Your task to perform on an android device: toggle improve location accuracy Image 0: 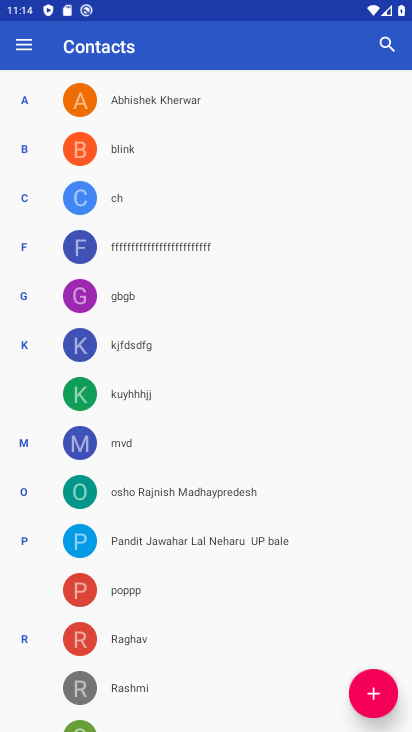
Step 0: press home button
Your task to perform on an android device: toggle improve location accuracy Image 1: 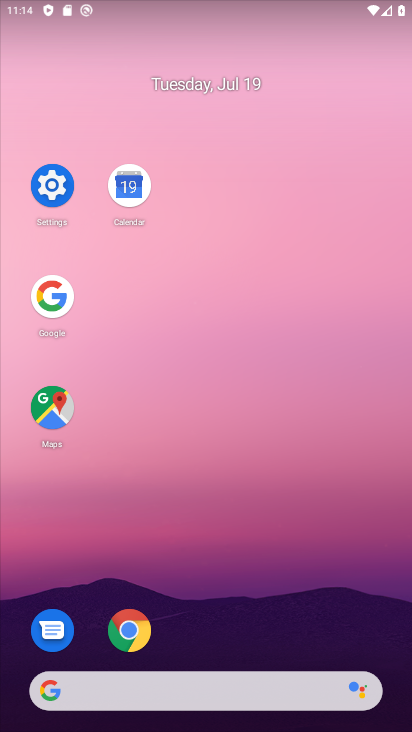
Step 1: click (64, 175)
Your task to perform on an android device: toggle improve location accuracy Image 2: 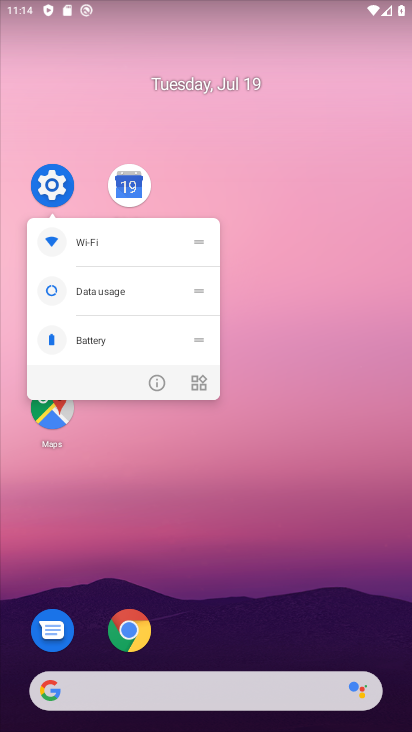
Step 2: click (65, 172)
Your task to perform on an android device: toggle improve location accuracy Image 3: 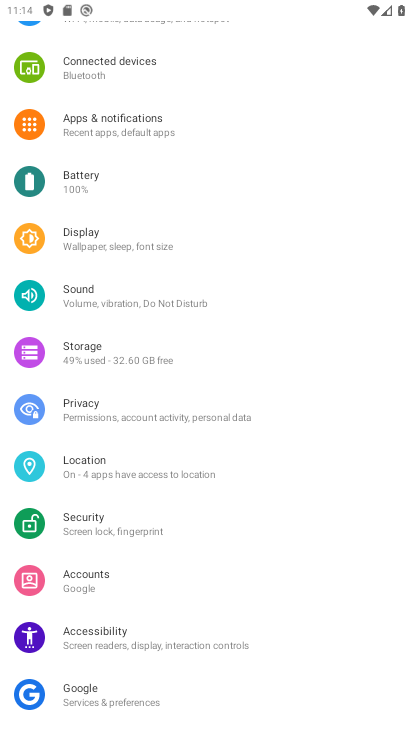
Step 3: click (133, 466)
Your task to perform on an android device: toggle improve location accuracy Image 4: 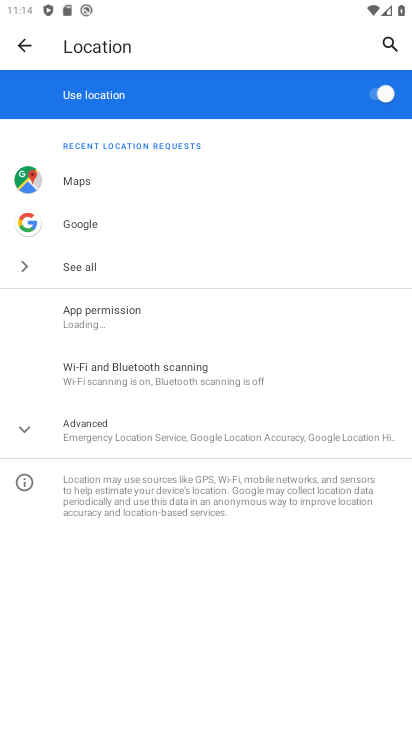
Step 4: click (136, 415)
Your task to perform on an android device: toggle improve location accuracy Image 5: 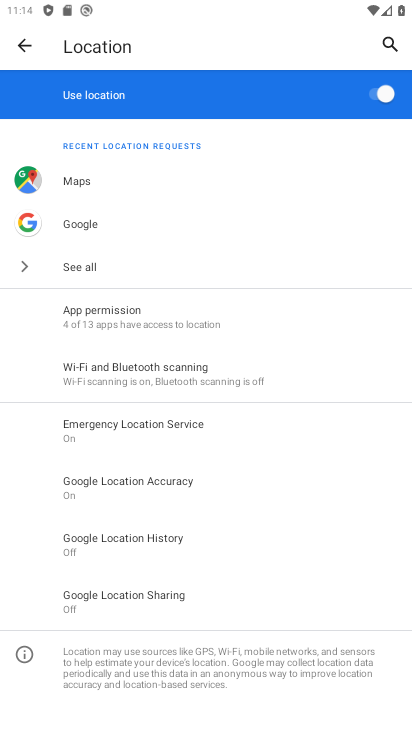
Step 5: click (166, 471)
Your task to perform on an android device: toggle improve location accuracy Image 6: 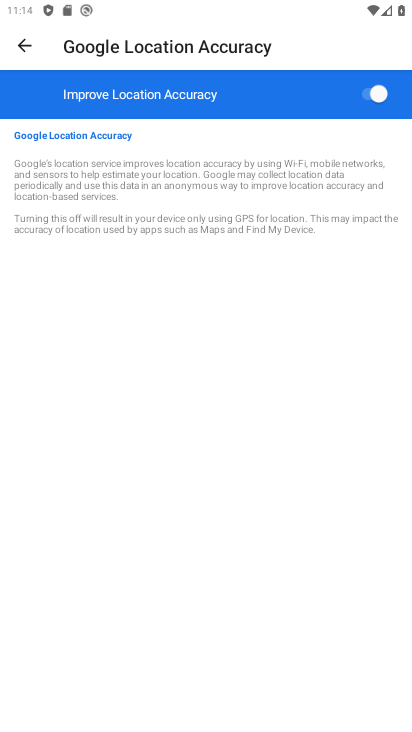
Step 6: click (387, 99)
Your task to perform on an android device: toggle improve location accuracy Image 7: 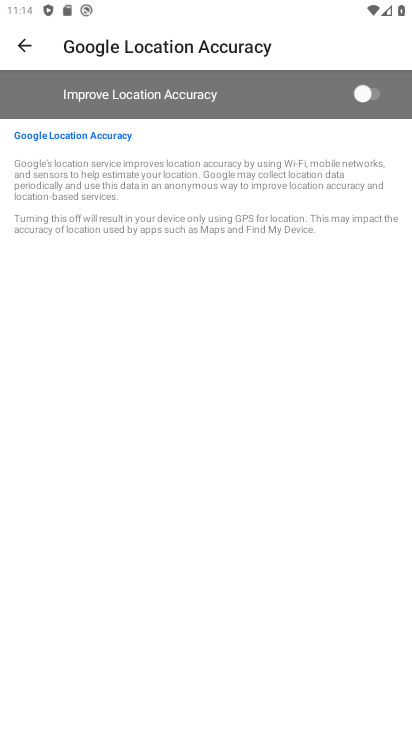
Step 7: task complete